Your task to perform on an android device: Open Chrome and go to the settings page Image 0: 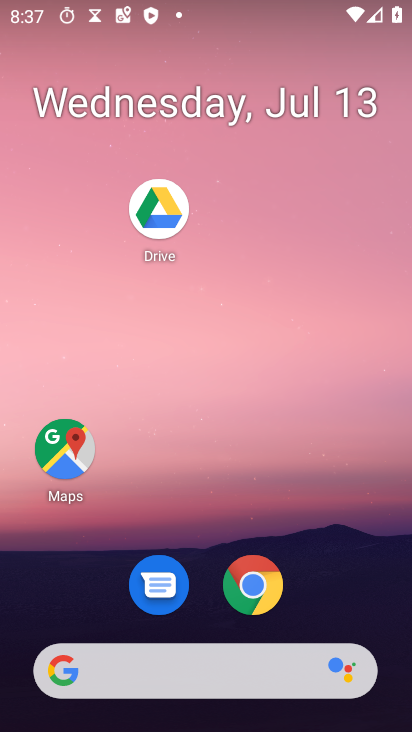
Step 0: click (257, 585)
Your task to perform on an android device: Open Chrome and go to the settings page Image 1: 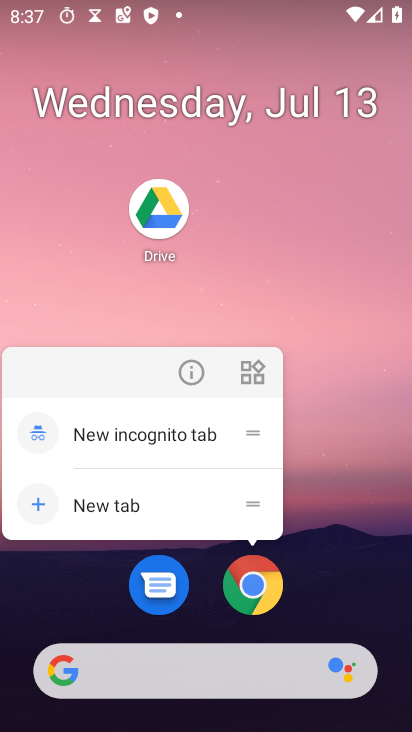
Step 1: click (257, 585)
Your task to perform on an android device: Open Chrome and go to the settings page Image 2: 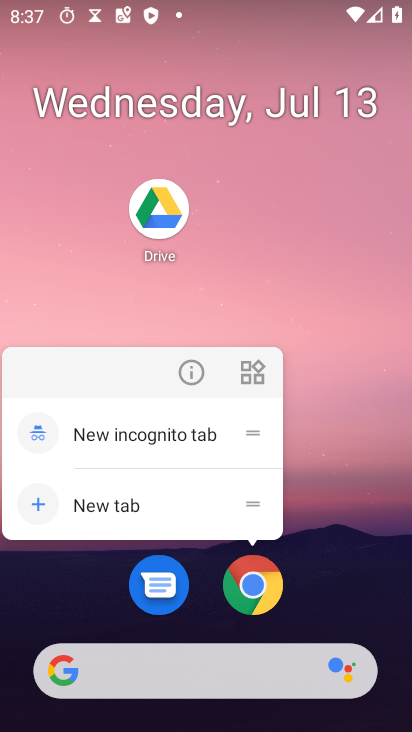
Step 2: click (257, 585)
Your task to perform on an android device: Open Chrome and go to the settings page Image 3: 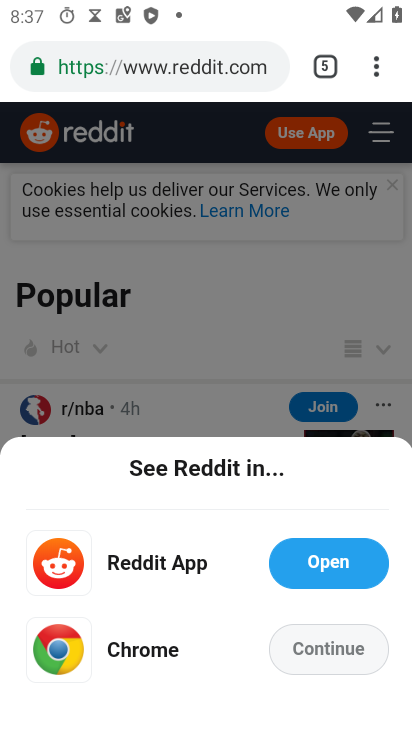
Step 3: task complete